Your task to perform on an android device: uninstall "Truecaller" Image 0: 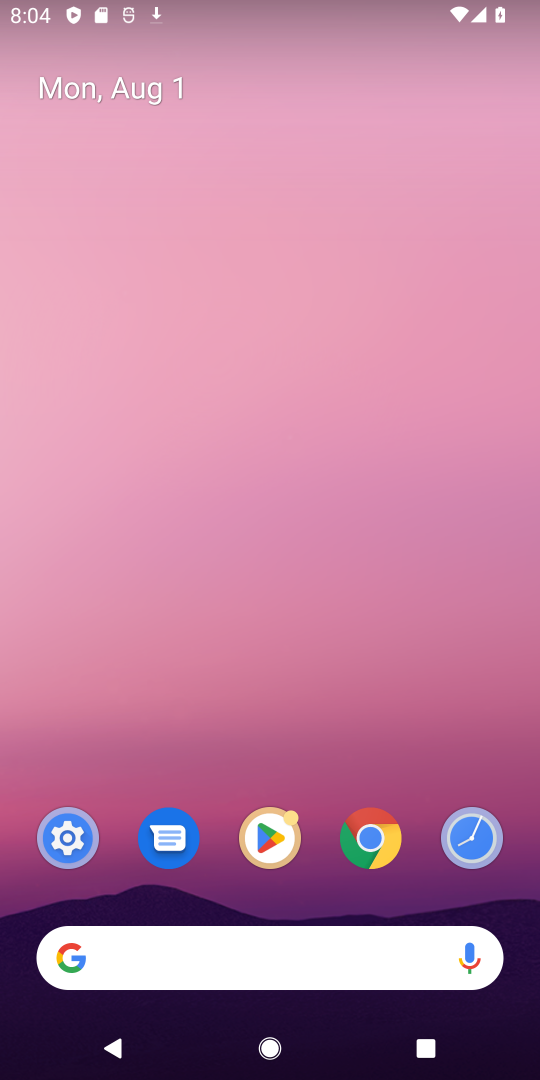
Step 0: press home button
Your task to perform on an android device: uninstall "Truecaller" Image 1: 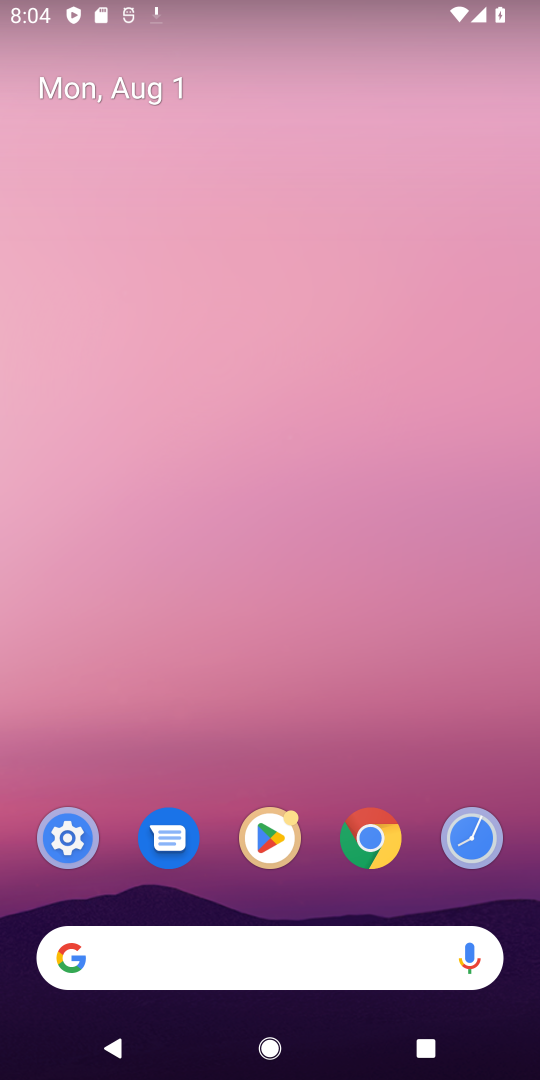
Step 1: click (259, 845)
Your task to perform on an android device: uninstall "Truecaller" Image 2: 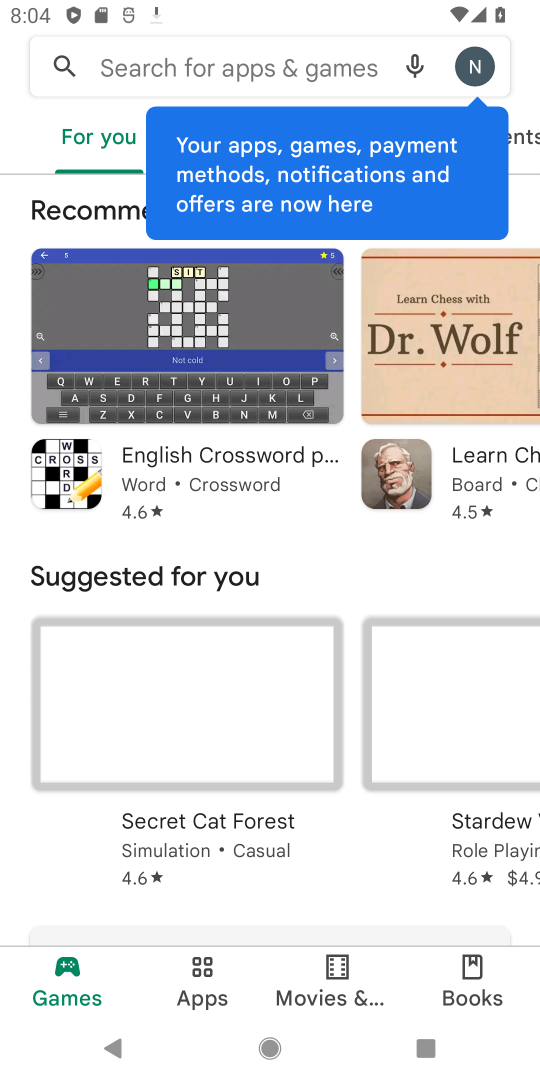
Step 2: click (302, 74)
Your task to perform on an android device: uninstall "Truecaller" Image 3: 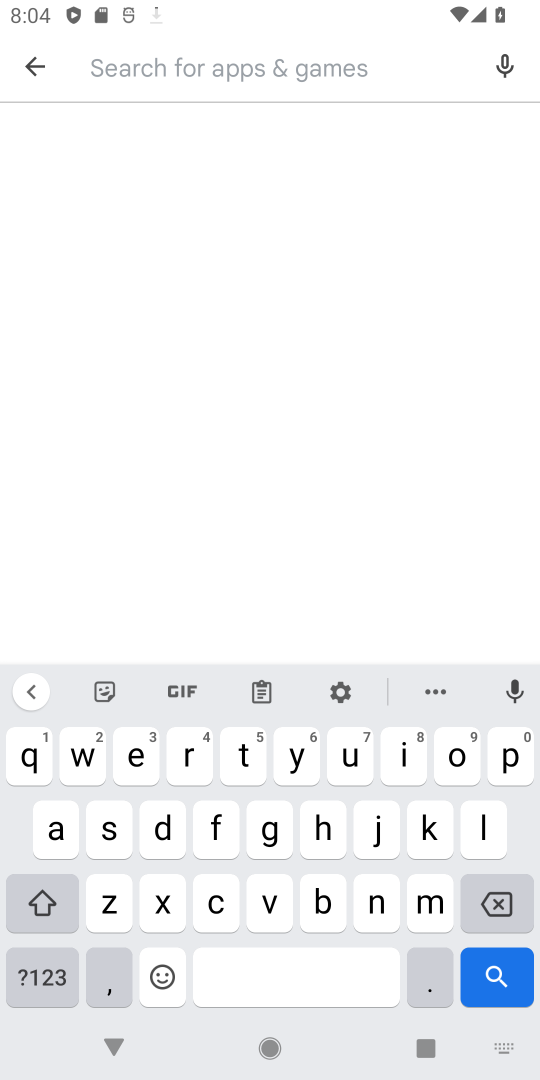
Step 3: click (240, 773)
Your task to perform on an android device: uninstall "Truecaller" Image 4: 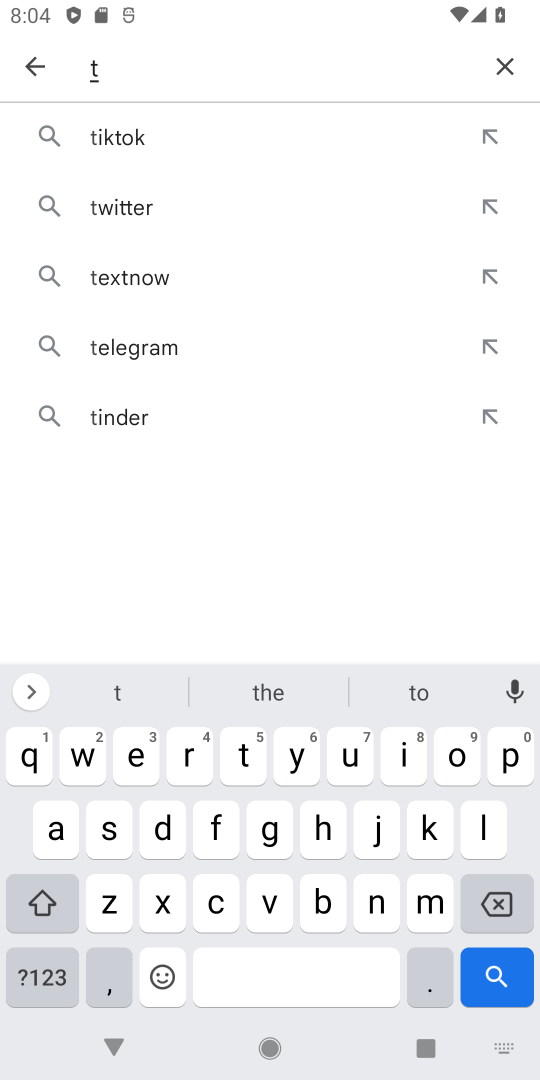
Step 4: click (181, 752)
Your task to perform on an android device: uninstall "Truecaller" Image 5: 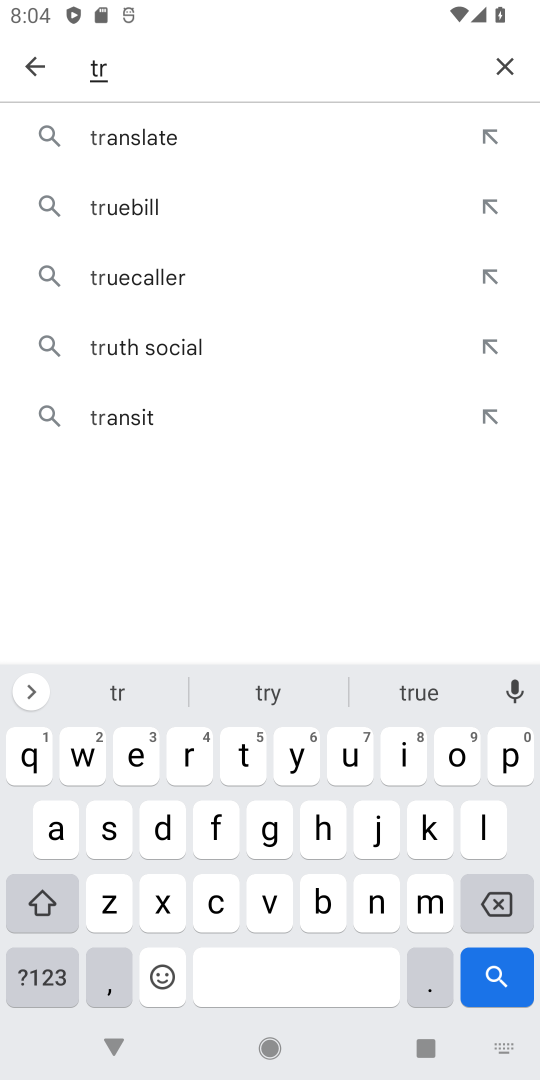
Step 5: click (148, 273)
Your task to perform on an android device: uninstall "Truecaller" Image 6: 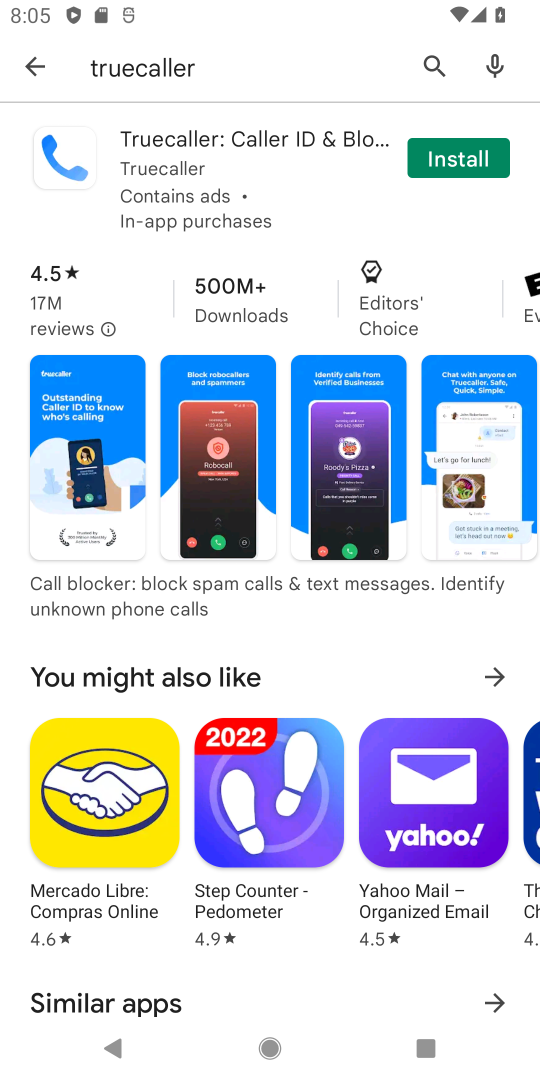
Step 6: click (432, 165)
Your task to perform on an android device: uninstall "Truecaller" Image 7: 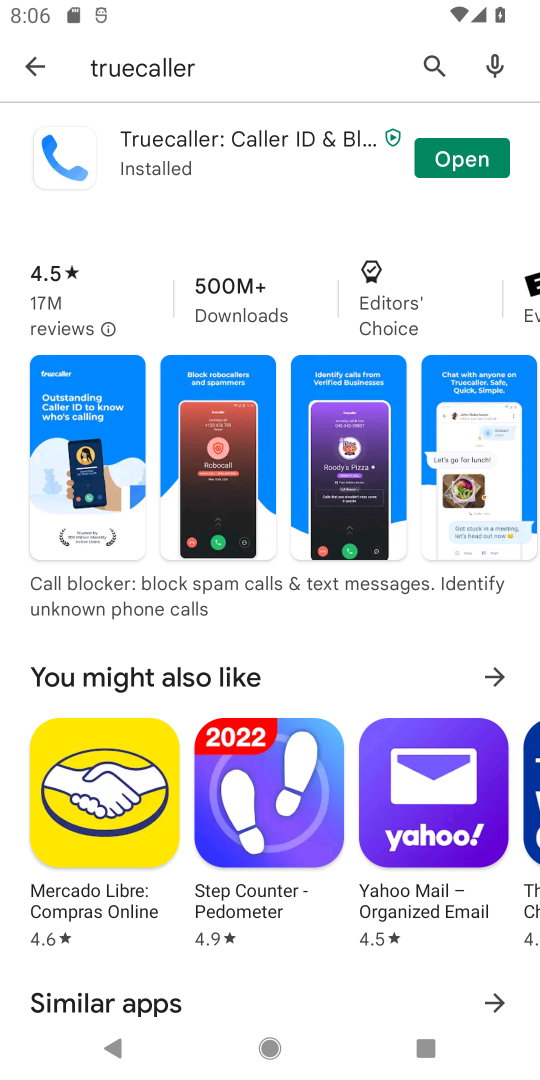
Step 7: click (156, 171)
Your task to perform on an android device: uninstall "Truecaller" Image 8: 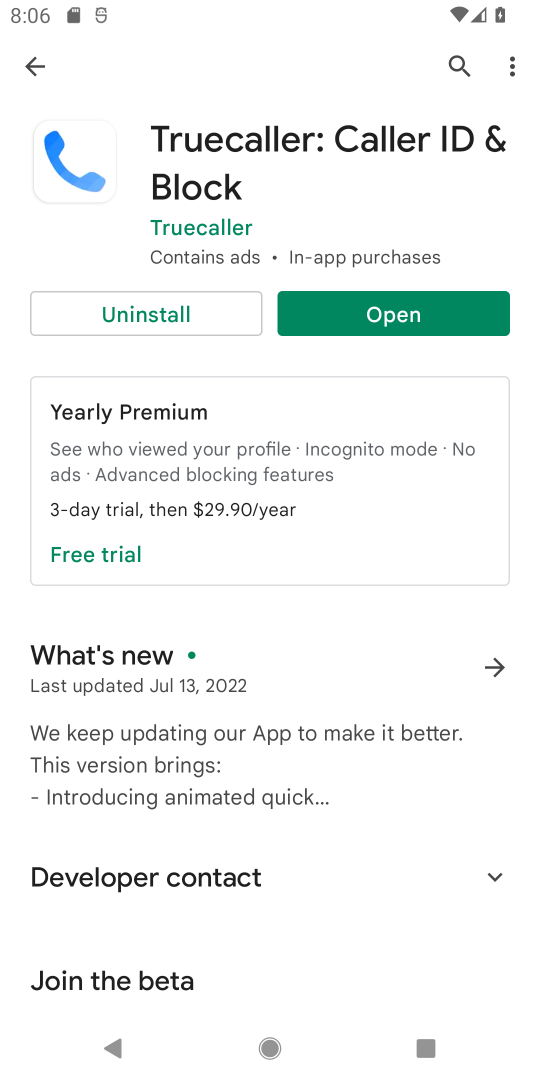
Step 8: click (184, 300)
Your task to perform on an android device: uninstall "Truecaller" Image 9: 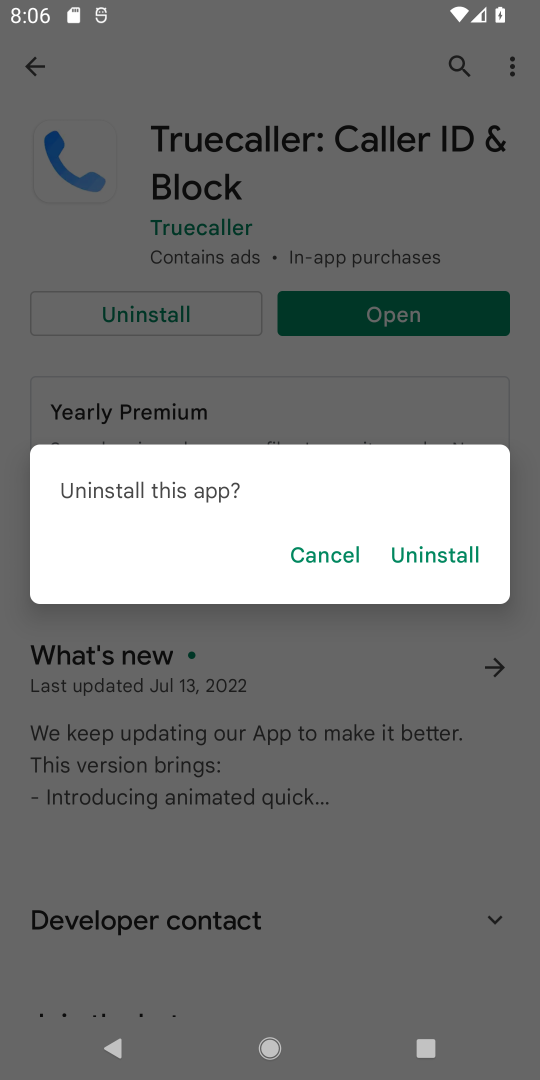
Step 9: click (447, 556)
Your task to perform on an android device: uninstall "Truecaller" Image 10: 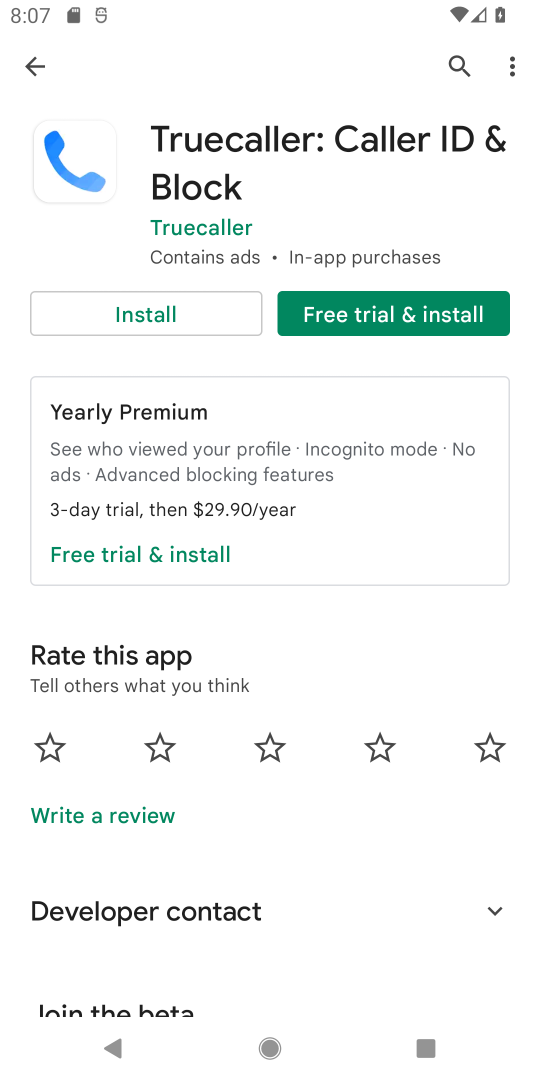
Step 10: task complete